Your task to perform on an android device: remove spam from my inbox in the gmail app Image 0: 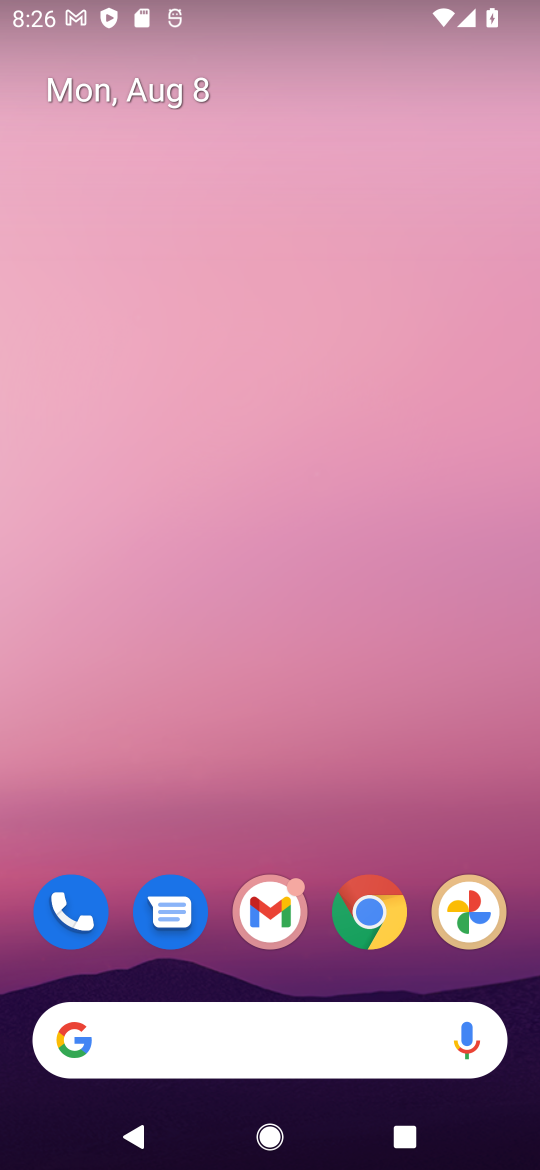
Step 0: click (332, 39)
Your task to perform on an android device: remove spam from my inbox in the gmail app Image 1: 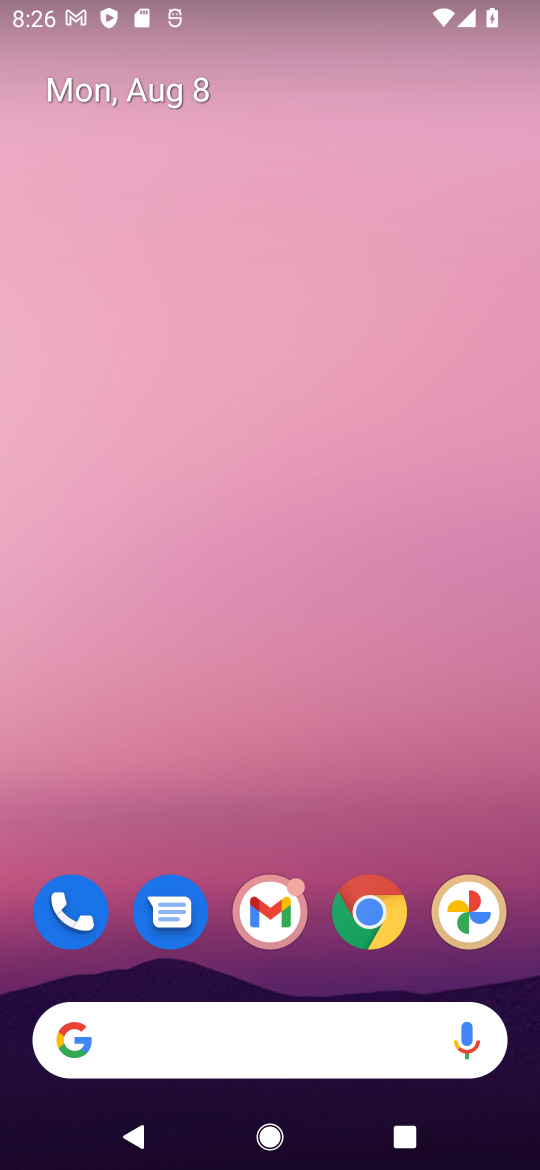
Step 1: drag from (437, 981) to (267, 27)
Your task to perform on an android device: remove spam from my inbox in the gmail app Image 2: 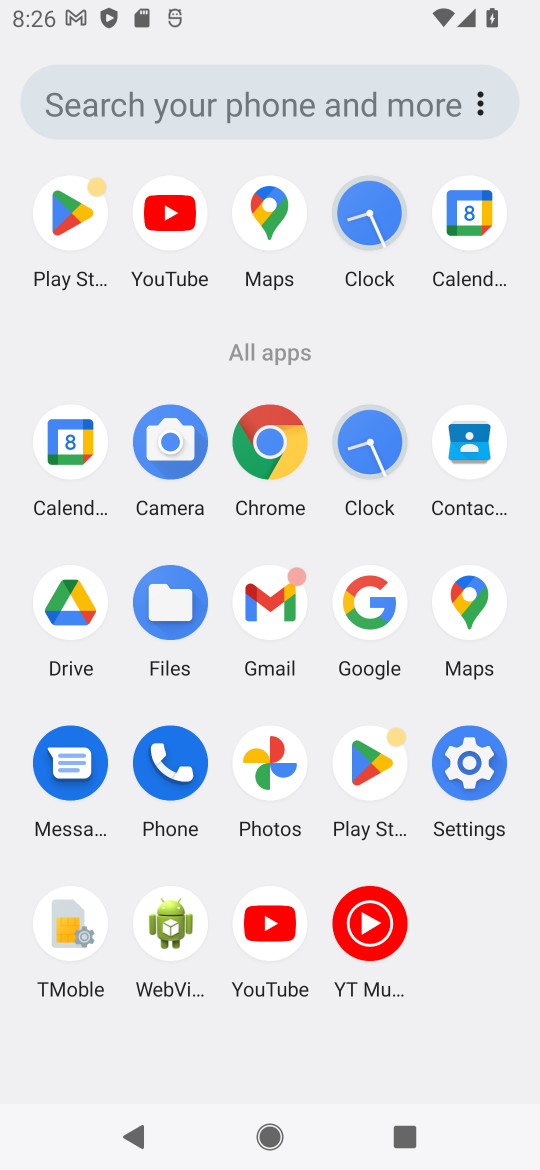
Step 2: click (276, 602)
Your task to perform on an android device: remove spam from my inbox in the gmail app Image 3: 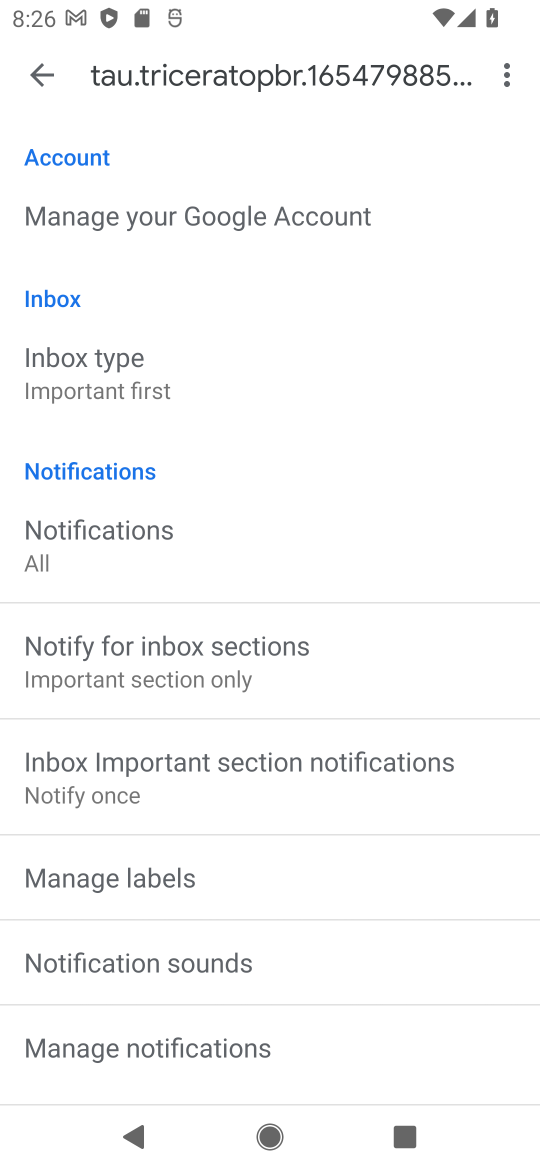
Step 3: task complete